Your task to perform on an android device: Go to CNN.com Image 0: 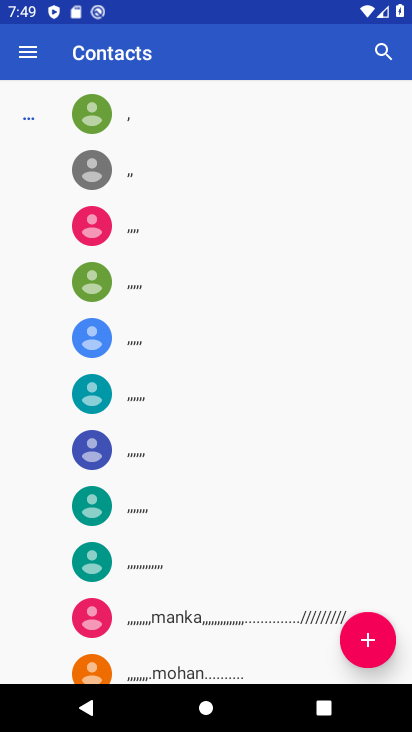
Step 0: press home button
Your task to perform on an android device: Go to CNN.com Image 1: 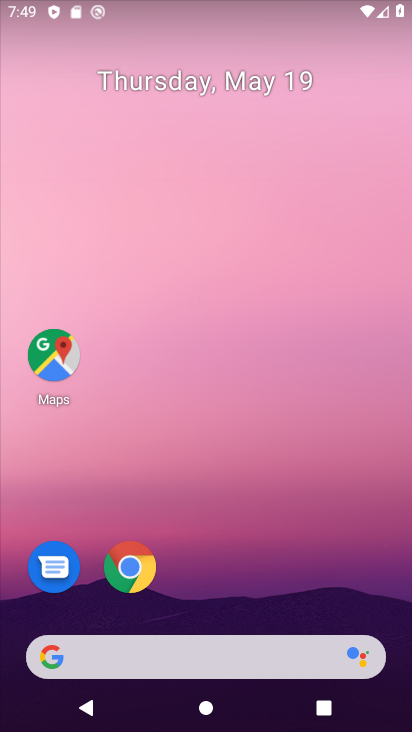
Step 1: click (196, 649)
Your task to perform on an android device: Go to CNN.com Image 2: 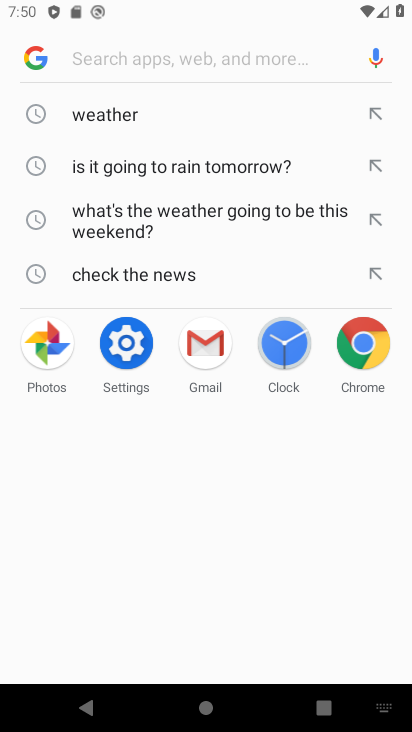
Step 2: type "cnn.com"
Your task to perform on an android device: Go to CNN.com Image 3: 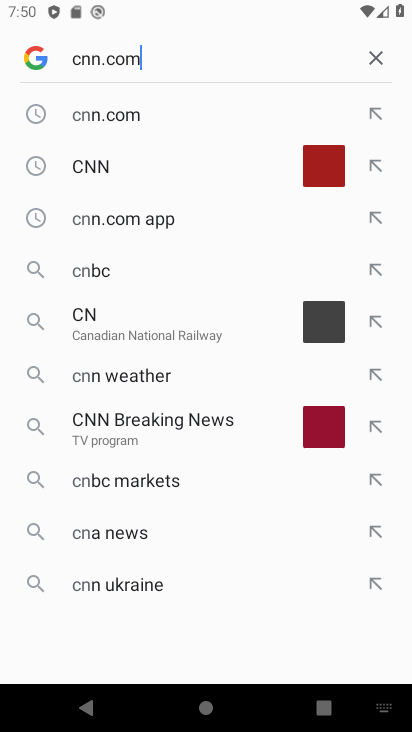
Step 3: type ""
Your task to perform on an android device: Go to CNN.com Image 4: 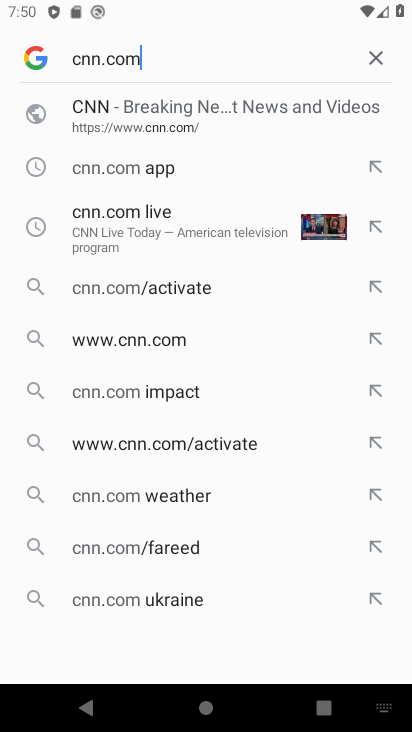
Step 4: click (89, 120)
Your task to perform on an android device: Go to CNN.com Image 5: 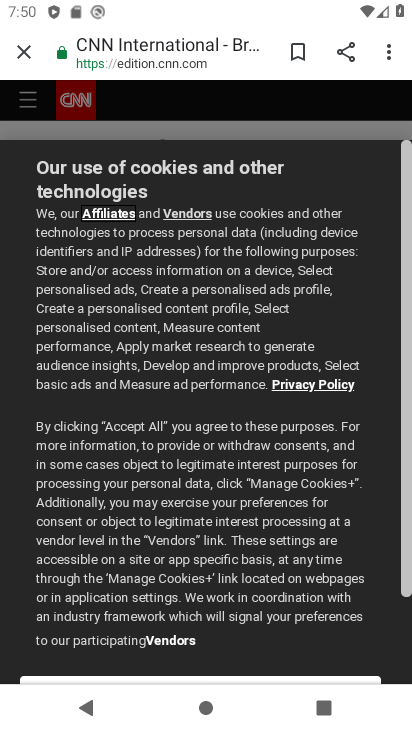
Step 5: task complete